Your task to perform on an android device: delete location history Image 0: 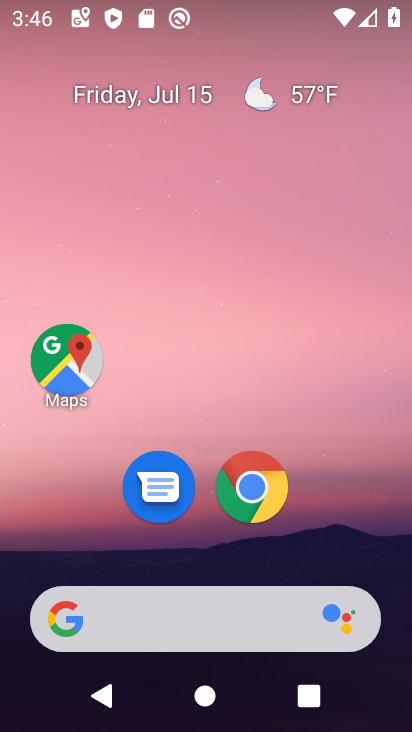
Step 0: drag from (143, 601) to (145, 17)
Your task to perform on an android device: delete location history Image 1: 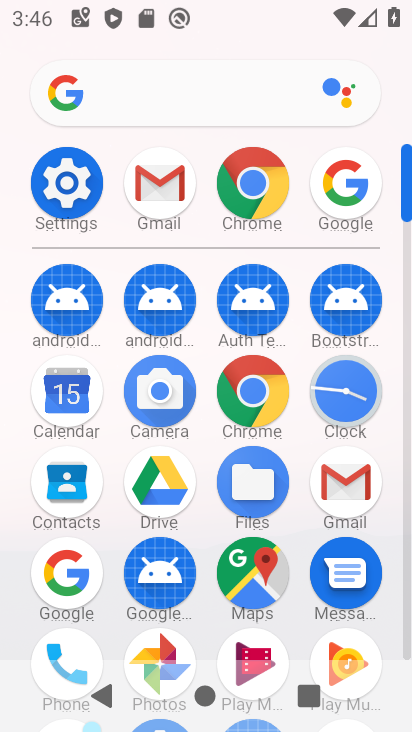
Step 1: click (89, 200)
Your task to perform on an android device: delete location history Image 2: 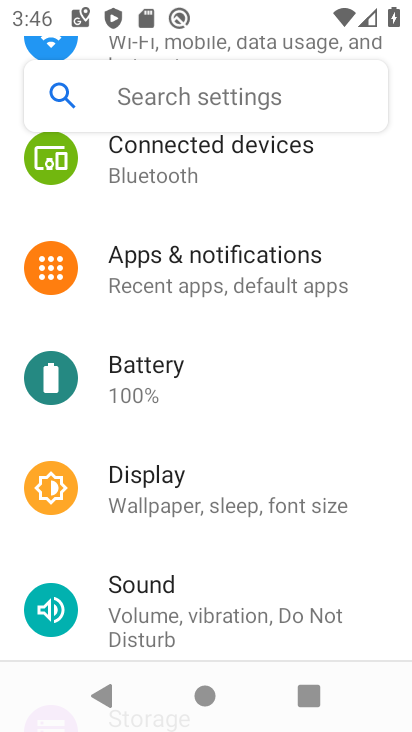
Step 2: drag from (179, 579) to (179, 228)
Your task to perform on an android device: delete location history Image 3: 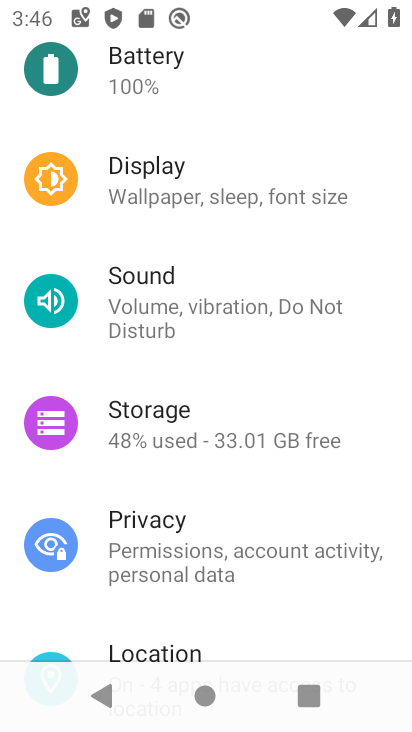
Step 3: drag from (166, 610) to (192, 389)
Your task to perform on an android device: delete location history Image 4: 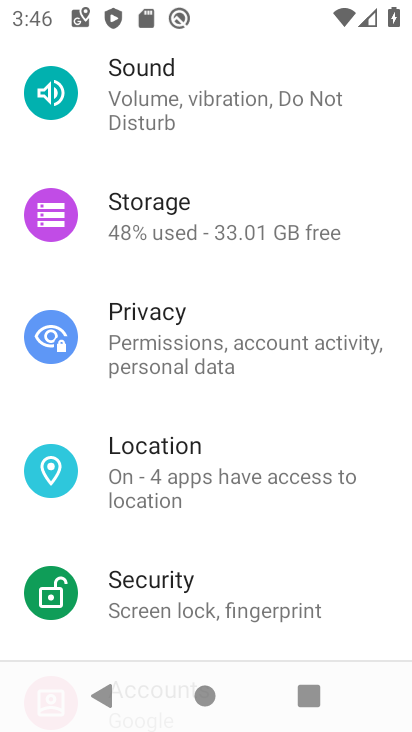
Step 4: click (181, 482)
Your task to perform on an android device: delete location history Image 5: 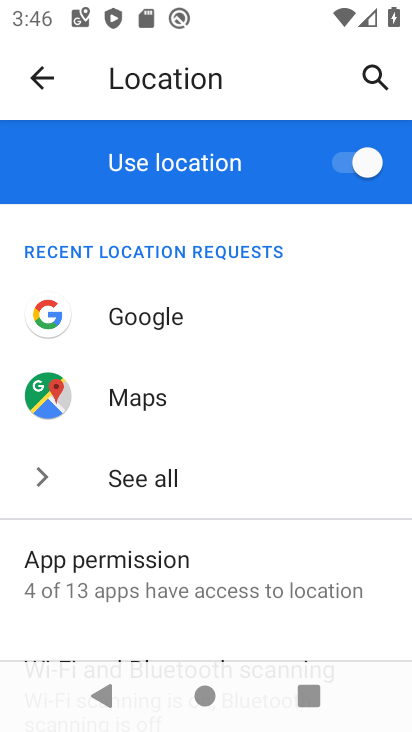
Step 5: click (115, 201)
Your task to perform on an android device: delete location history Image 6: 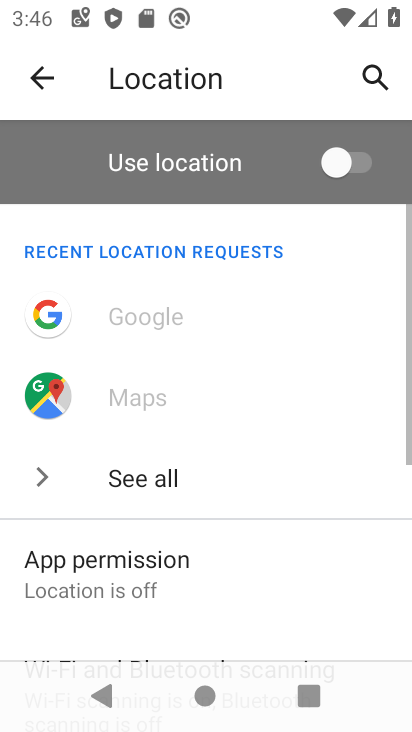
Step 6: drag from (123, 546) to (154, 142)
Your task to perform on an android device: delete location history Image 7: 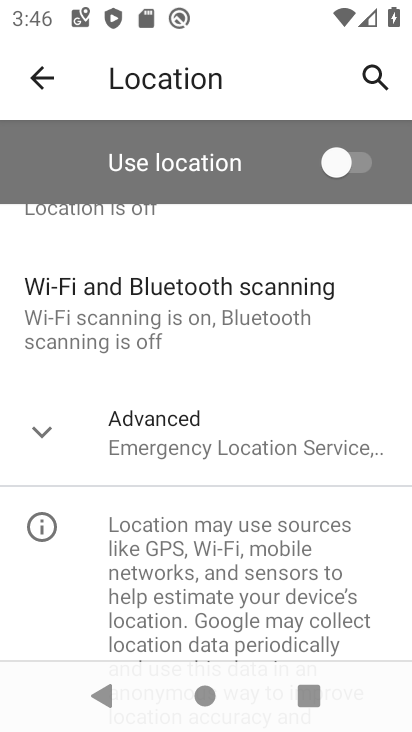
Step 7: click (262, 449)
Your task to perform on an android device: delete location history Image 8: 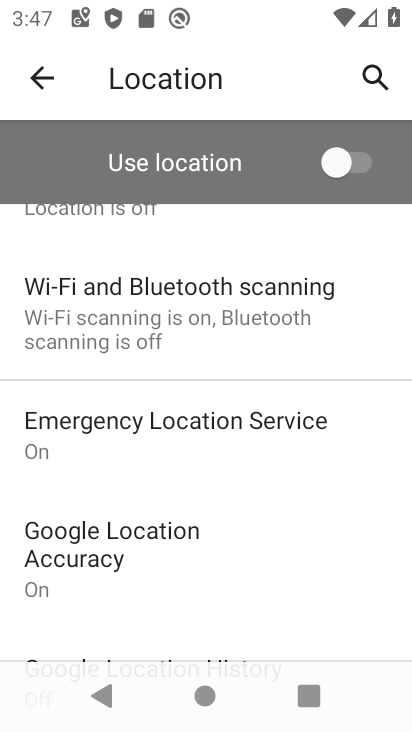
Step 8: drag from (209, 556) to (196, 118)
Your task to perform on an android device: delete location history Image 9: 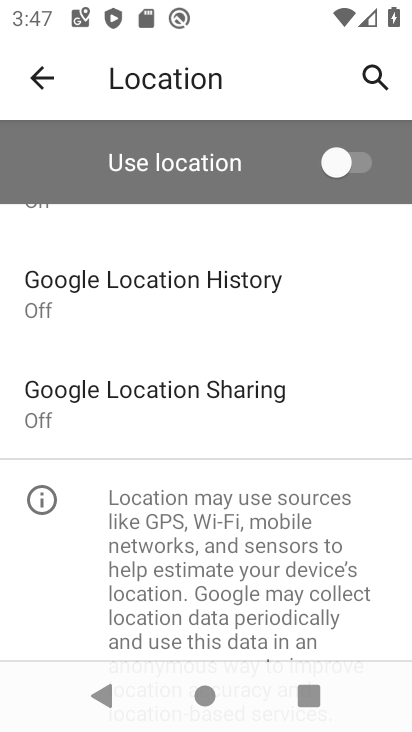
Step 9: click (188, 304)
Your task to perform on an android device: delete location history Image 10: 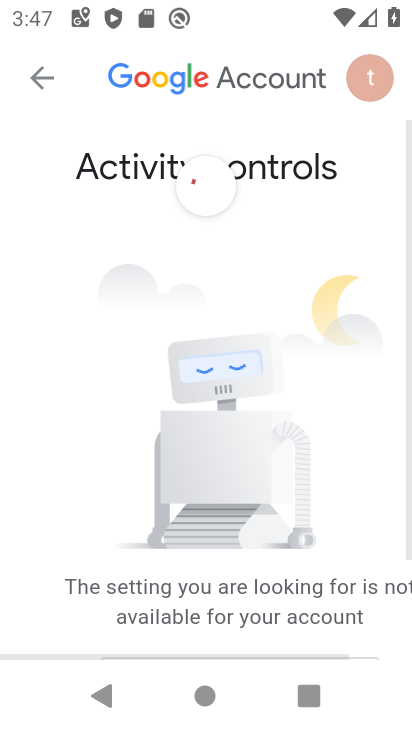
Step 10: task complete